Your task to perform on an android device: Open the stopwatch Image 0: 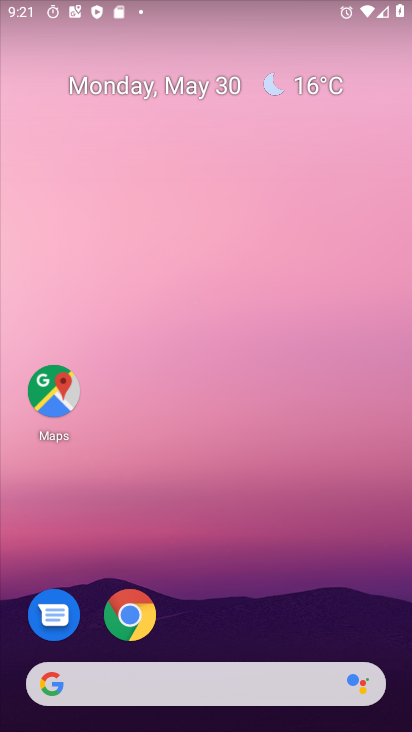
Step 0: drag from (301, 573) to (326, 70)
Your task to perform on an android device: Open the stopwatch Image 1: 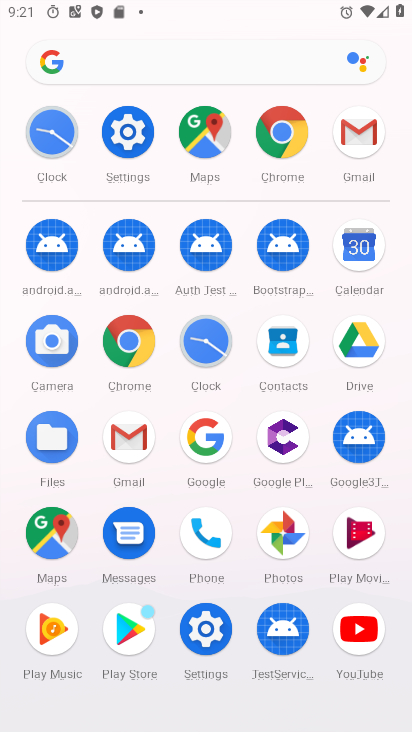
Step 1: click (39, 136)
Your task to perform on an android device: Open the stopwatch Image 2: 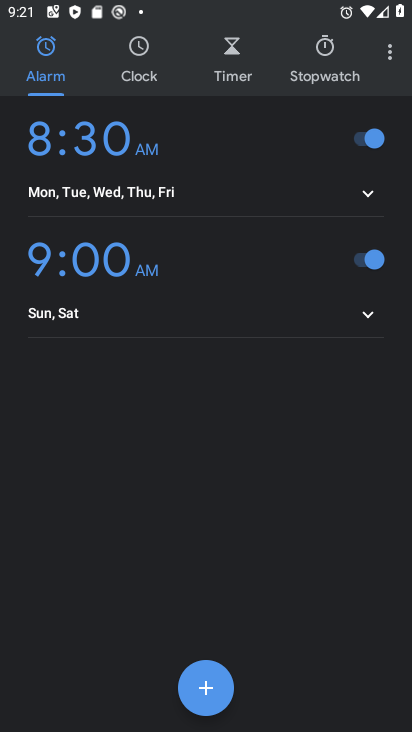
Step 2: click (319, 65)
Your task to perform on an android device: Open the stopwatch Image 3: 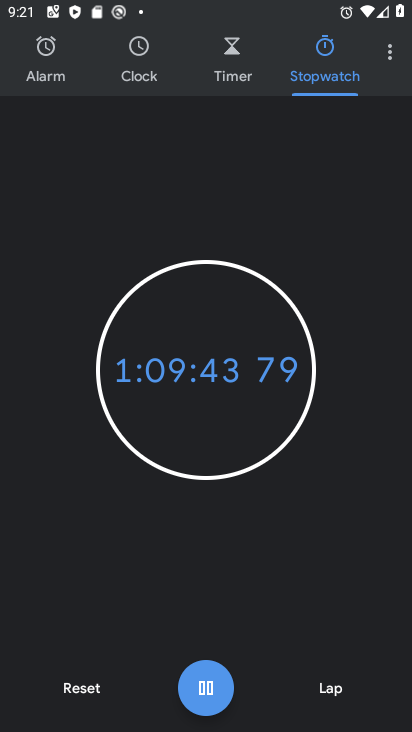
Step 3: task complete